Your task to perform on an android device: turn on data saver in the chrome app Image 0: 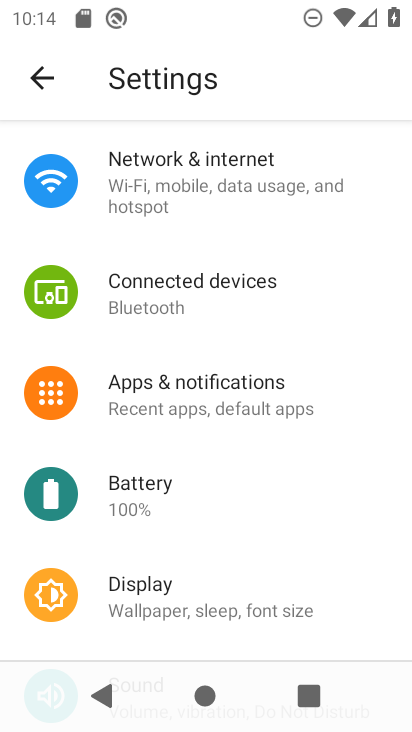
Step 0: press home button
Your task to perform on an android device: turn on data saver in the chrome app Image 1: 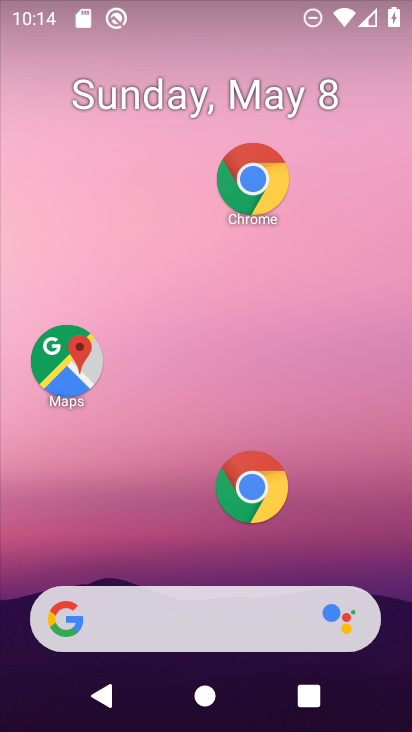
Step 1: click (271, 515)
Your task to perform on an android device: turn on data saver in the chrome app Image 2: 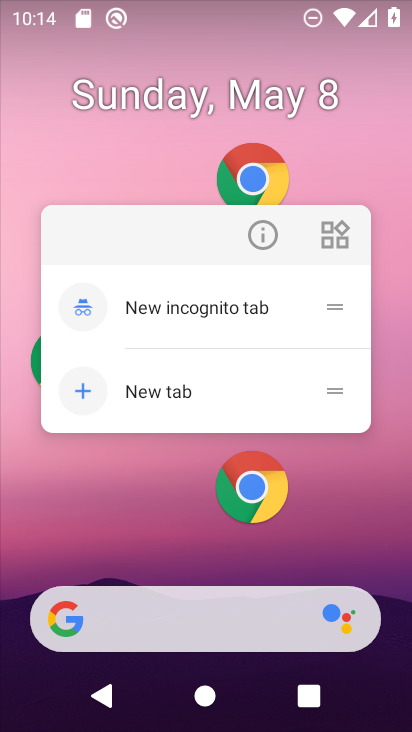
Step 2: drag from (195, 538) to (221, 66)
Your task to perform on an android device: turn on data saver in the chrome app Image 3: 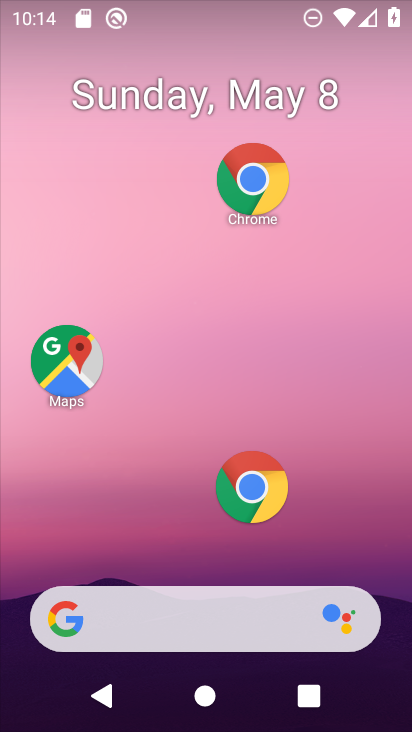
Step 3: drag from (156, 463) to (202, 64)
Your task to perform on an android device: turn on data saver in the chrome app Image 4: 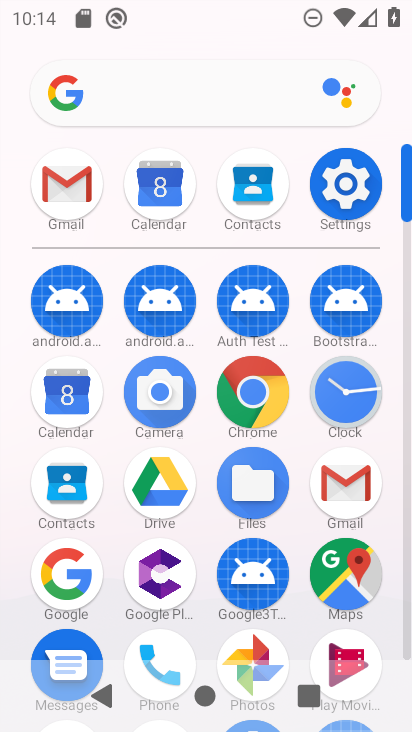
Step 4: click (252, 390)
Your task to perform on an android device: turn on data saver in the chrome app Image 5: 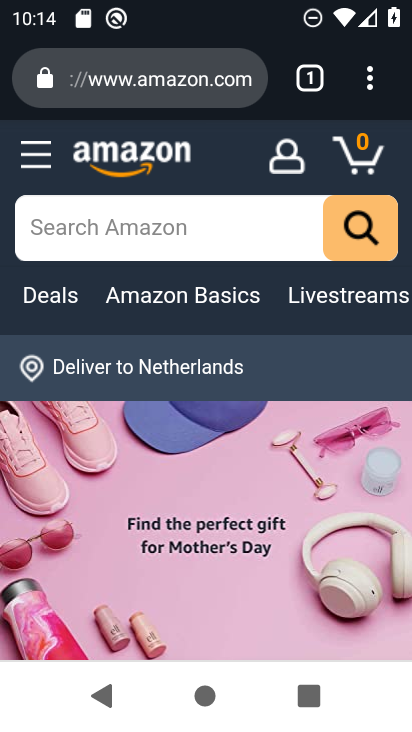
Step 5: click (371, 79)
Your task to perform on an android device: turn on data saver in the chrome app Image 6: 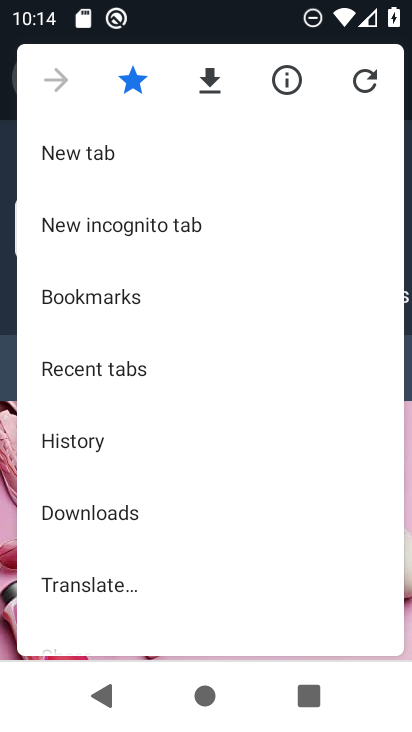
Step 6: drag from (224, 518) to (252, 118)
Your task to perform on an android device: turn on data saver in the chrome app Image 7: 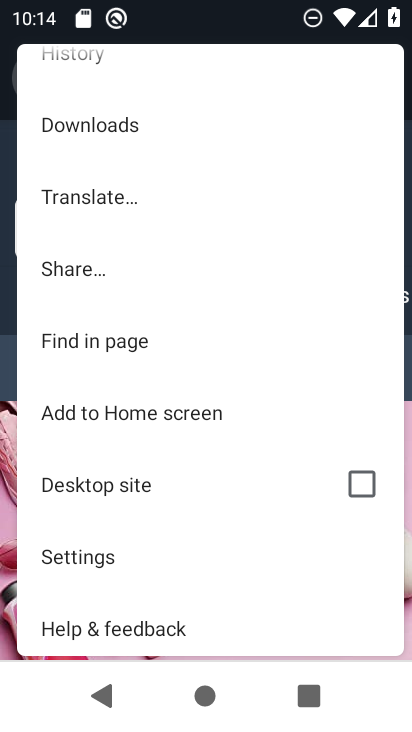
Step 7: click (93, 553)
Your task to perform on an android device: turn on data saver in the chrome app Image 8: 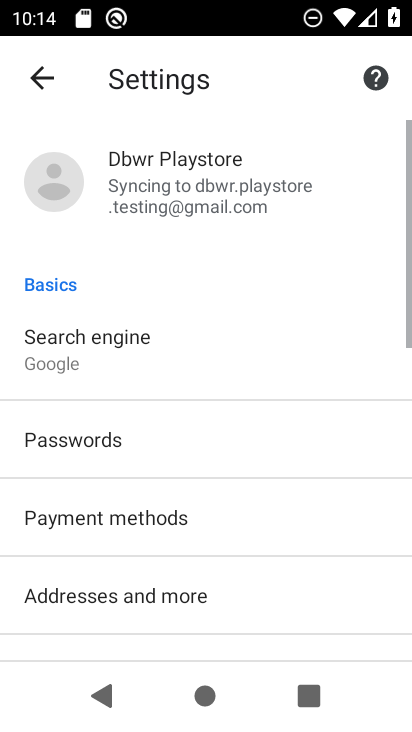
Step 8: drag from (265, 602) to (222, 25)
Your task to perform on an android device: turn on data saver in the chrome app Image 9: 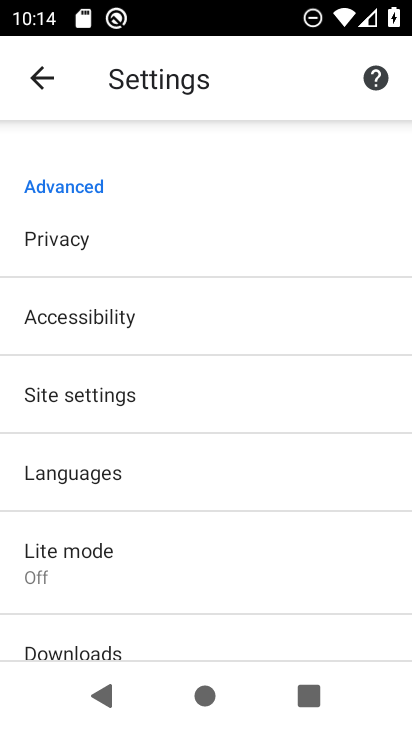
Step 9: click (213, 560)
Your task to perform on an android device: turn on data saver in the chrome app Image 10: 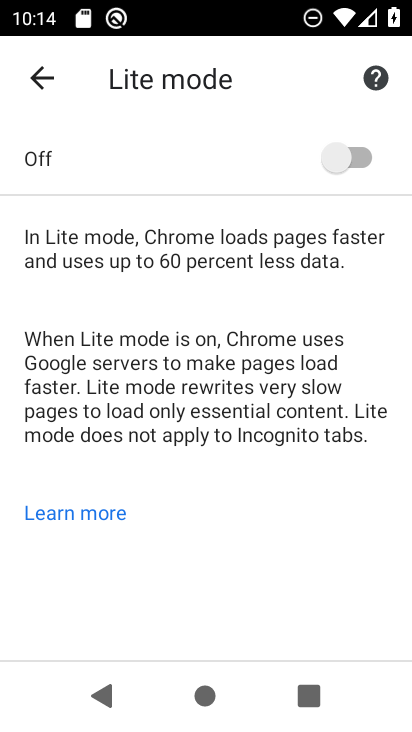
Step 10: click (359, 151)
Your task to perform on an android device: turn on data saver in the chrome app Image 11: 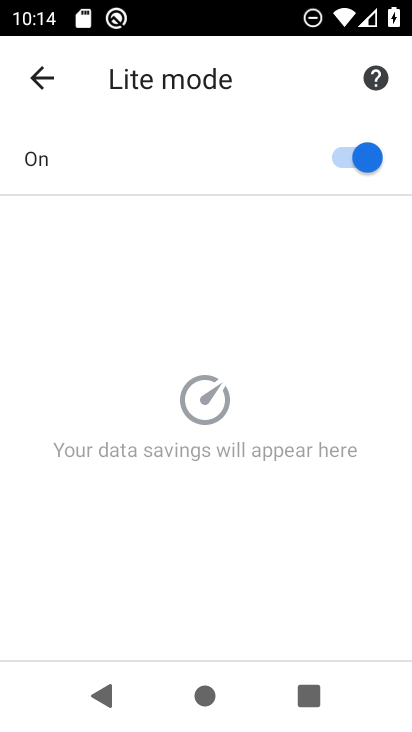
Step 11: task complete